Your task to perform on an android device: Open internet settings Image 0: 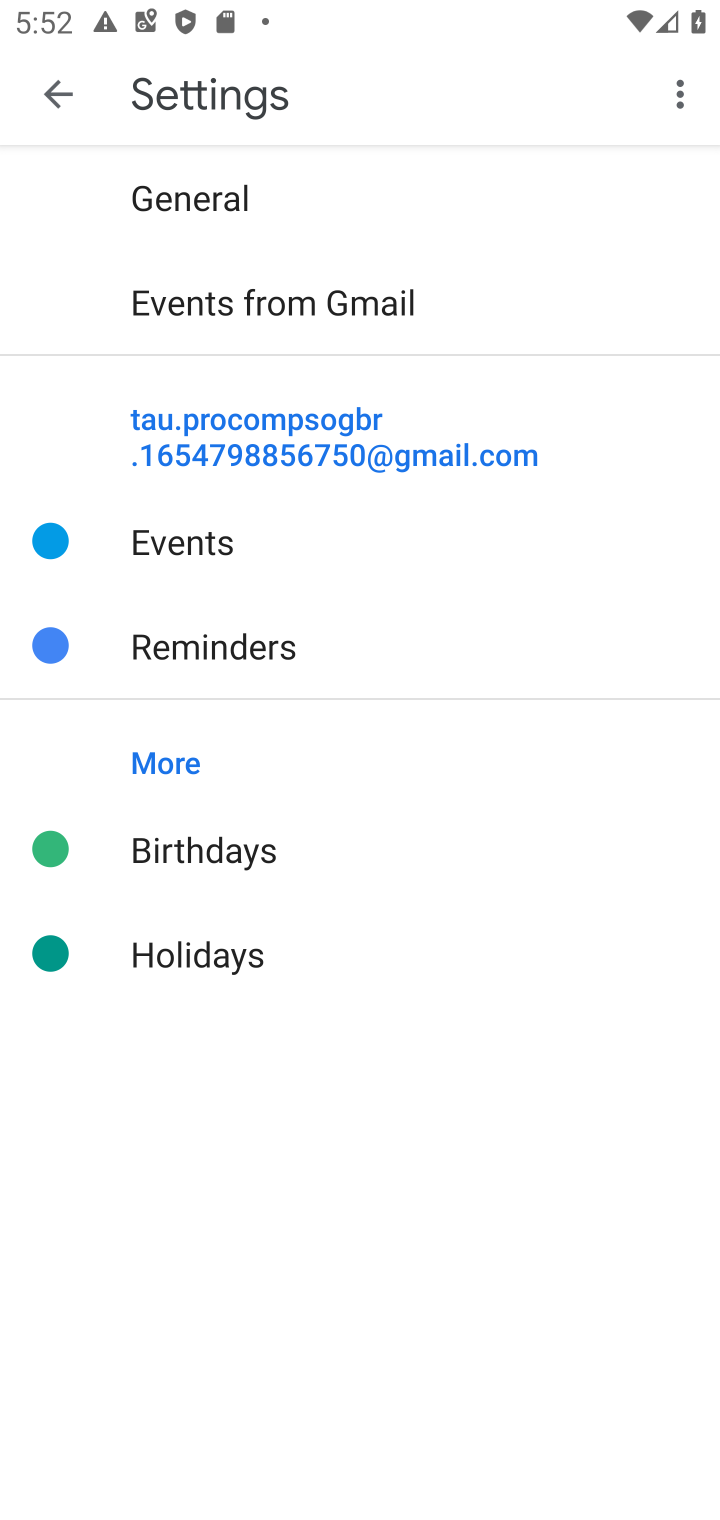
Step 0: press home button
Your task to perform on an android device: Open internet settings Image 1: 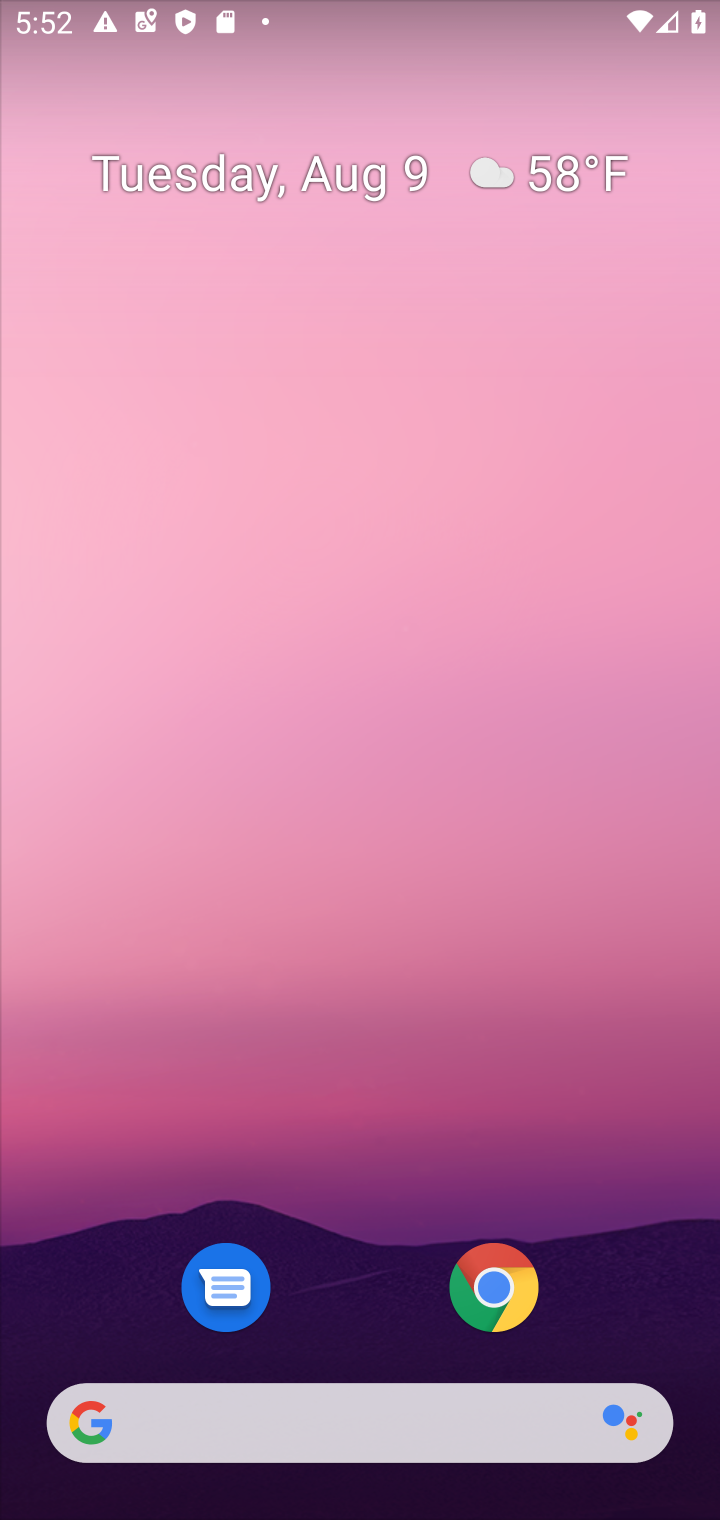
Step 1: drag from (357, 1179) to (463, 366)
Your task to perform on an android device: Open internet settings Image 2: 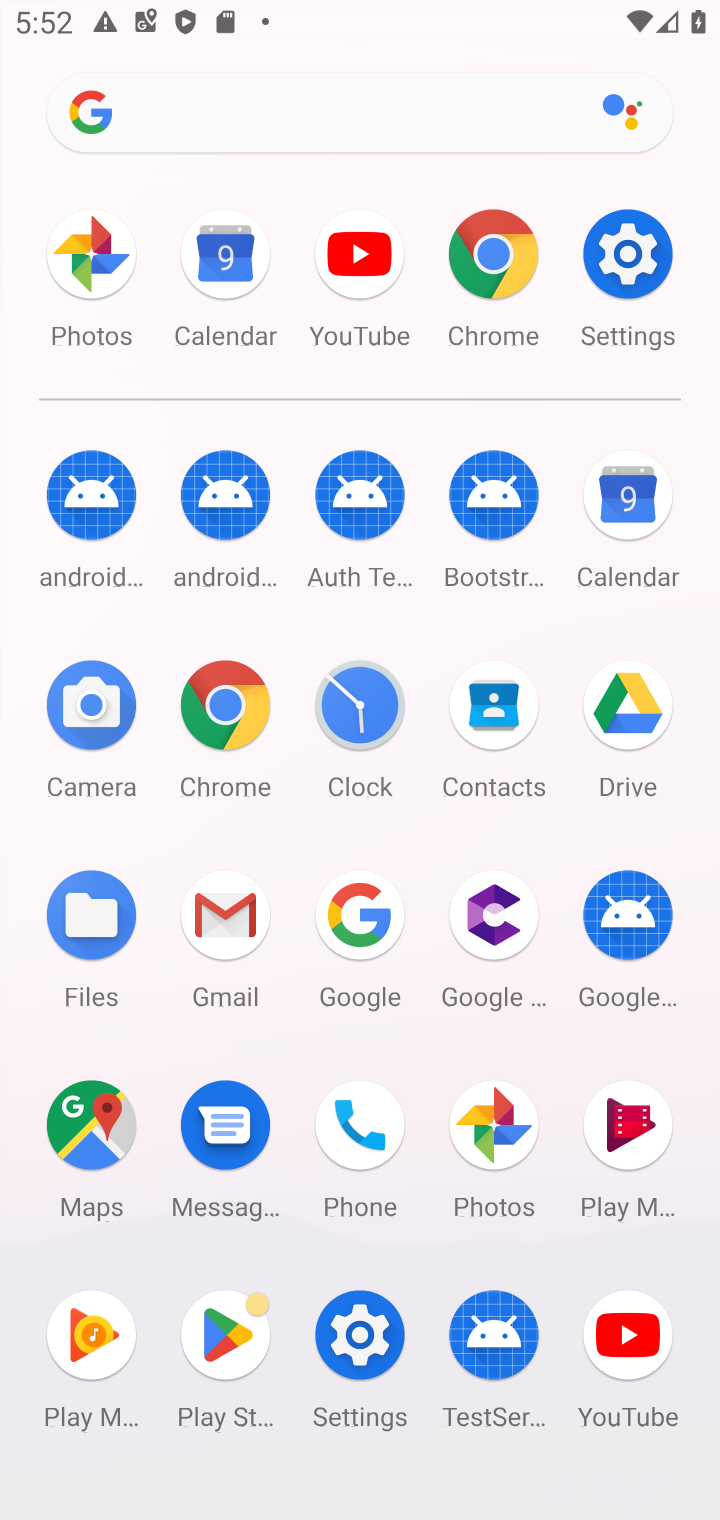
Step 2: click (610, 1352)
Your task to perform on an android device: Open internet settings Image 3: 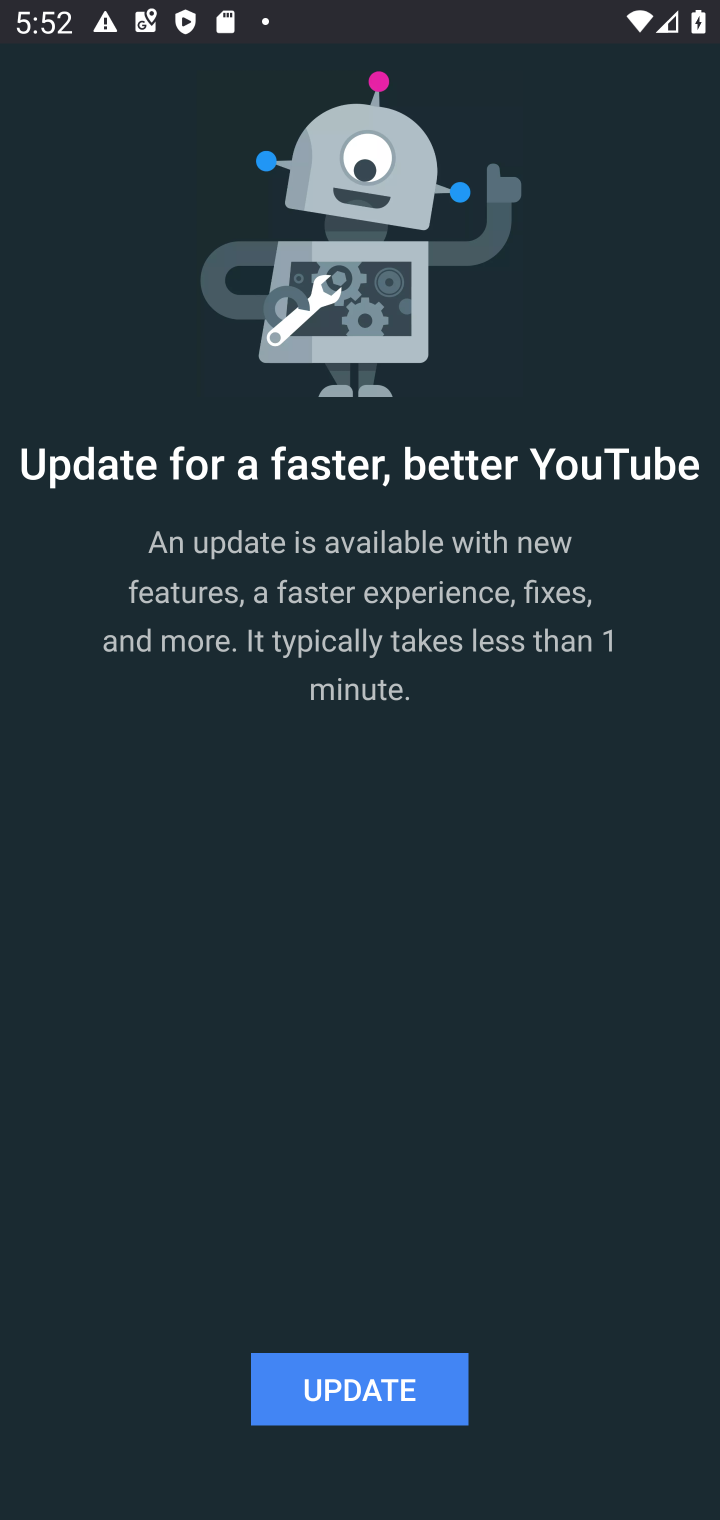
Step 3: task complete